Your task to perform on an android device: Find coffee shops on Maps Image 0: 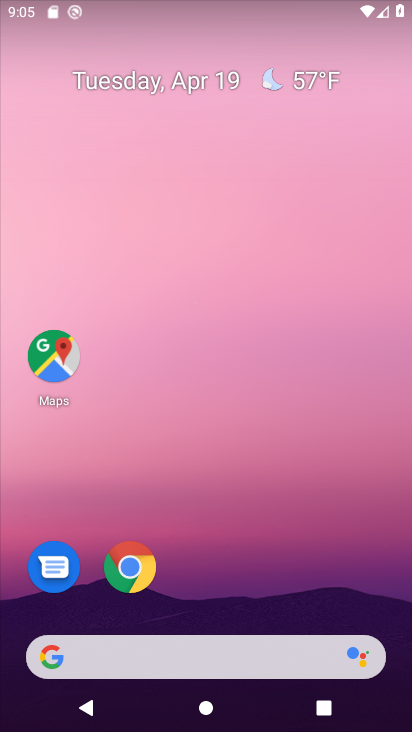
Step 0: click (56, 363)
Your task to perform on an android device: Find coffee shops on Maps Image 1: 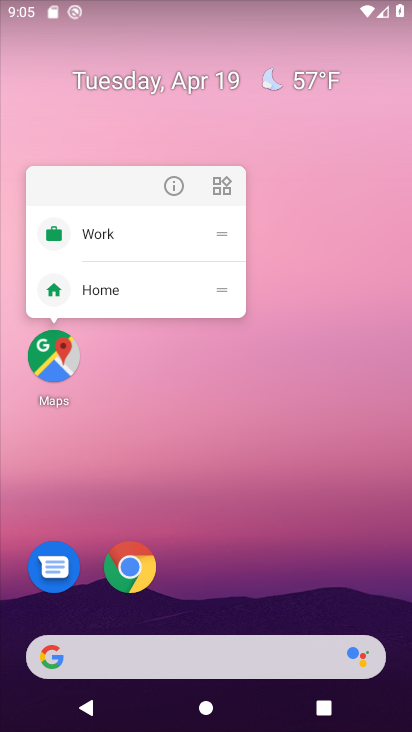
Step 1: click (56, 363)
Your task to perform on an android device: Find coffee shops on Maps Image 2: 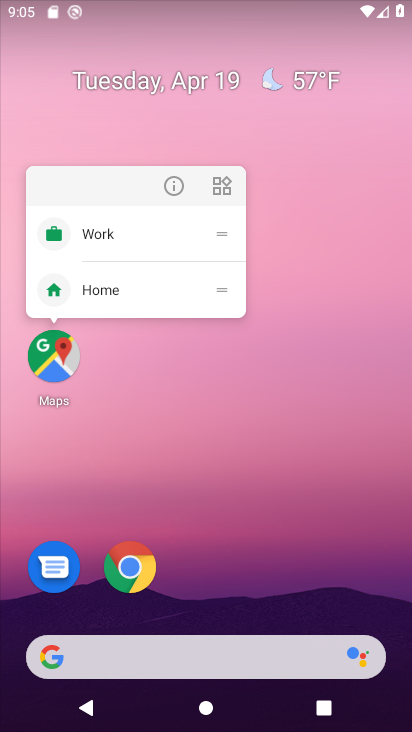
Step 2: click (56, 363)
Your task to perform on an android device: Find coffee shops on Maps Image 3: 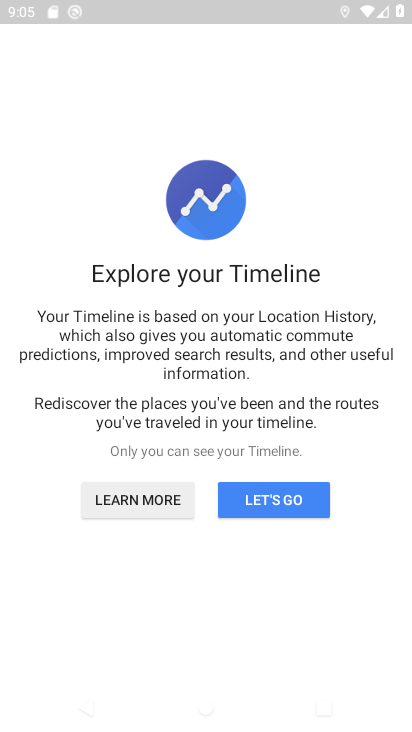
Step 3: press back button
Your task to perform on an android device: Find coffee shops on Maps Image 4: 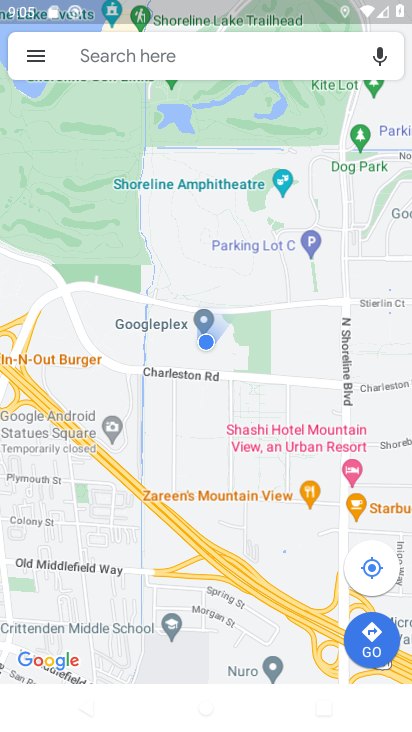
Step 4: click (259, 64)
Your task to perform on an android device: Find coffee shops on Maps Image 5: 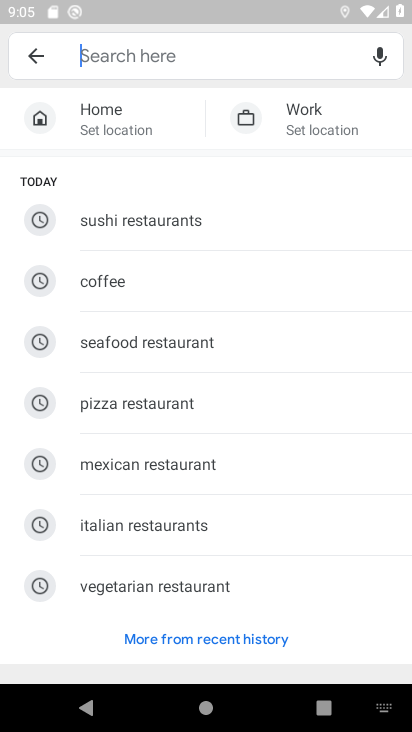
Step 5: click (130, 275)
Your task to perform on an android device: Find coffee shops on Maps Image 6: 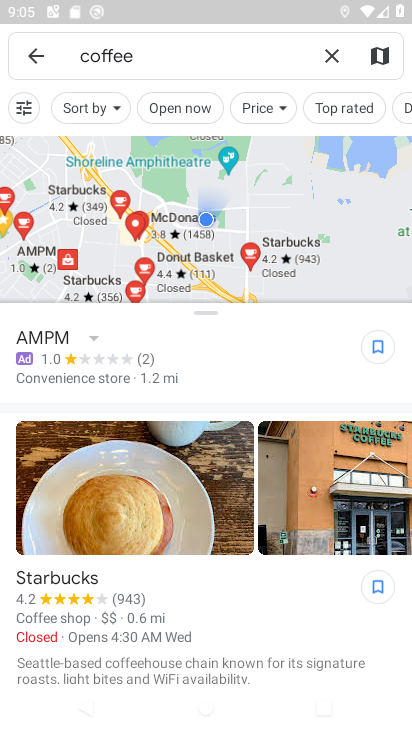
Step 6: task complete